Your task to perform on an android device: refresh tabs in the chrome app Image 0: 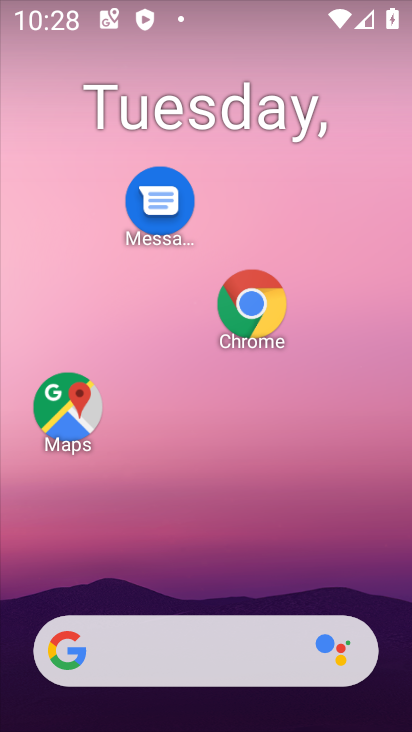
Step 0: drag from (287, 533) to (339, 221)
Your task to perform on an android device: refresh tabs in the chrome app Image 1: 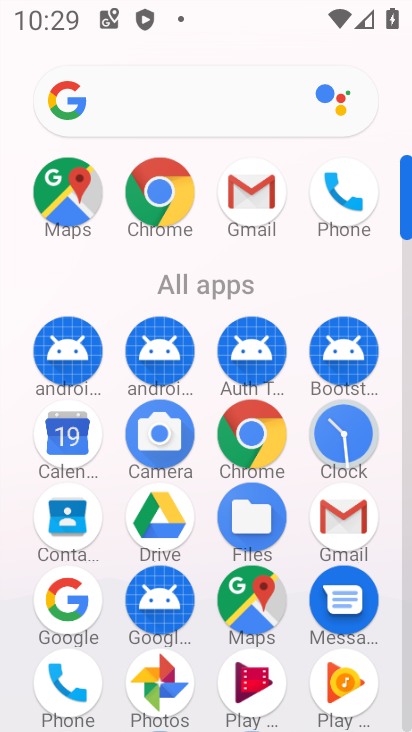
Step 1: click (173, 187)
Your task to perform on an android device: refresh tabs in the chrome app Image 2: 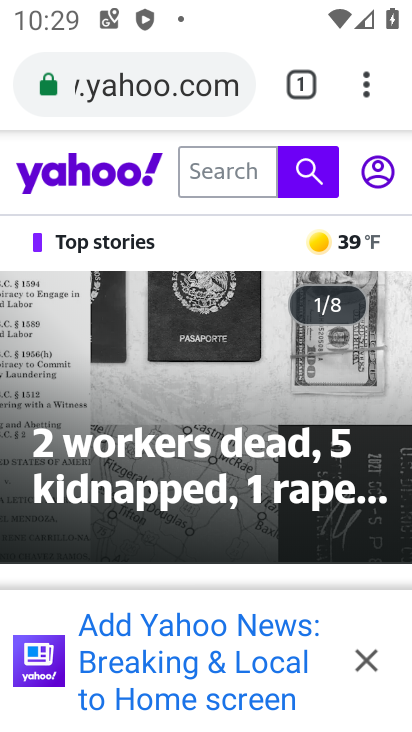
Step 2: click (372, 73)
Your task to perform on an android device: refresh tabs in the chrome app Image 3: 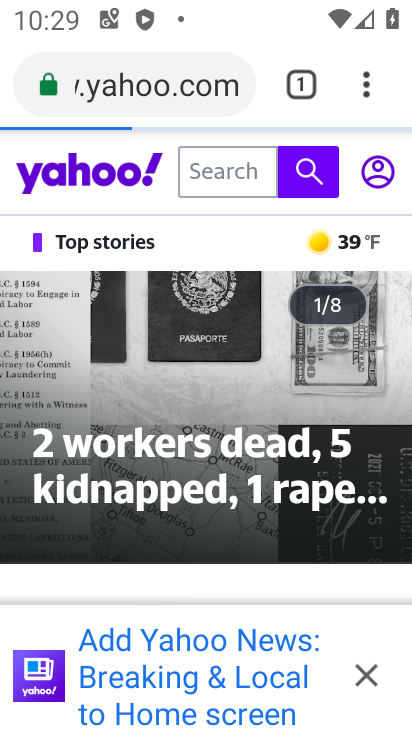
Step 3: click (369, 85)
Your task to perform on an android device: refresh tabs in the chrome app Image 4: 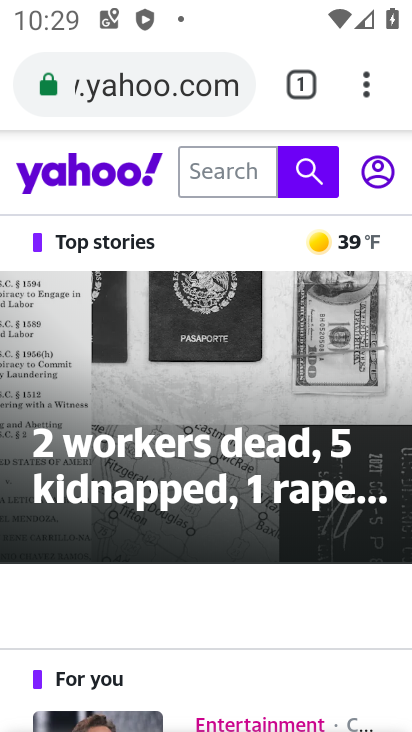
Step 4: click (369, 85)
Your task to perform on an android device: refresh tabs in the chrome app Image 5: 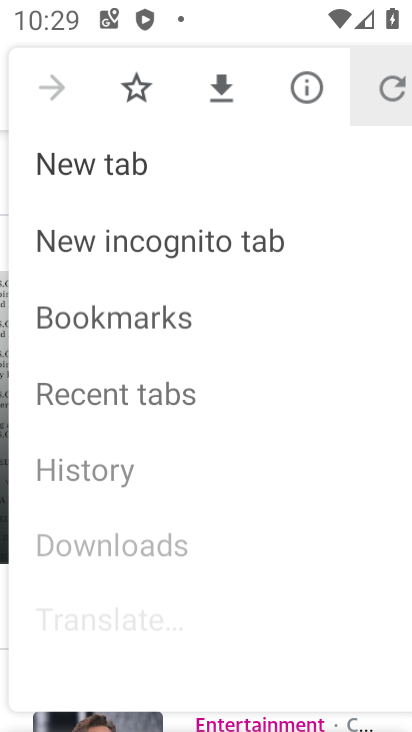
Step 5: click (192, 206)
Your task to perform on an android device: refresh tabs in the chrome app Image 6: 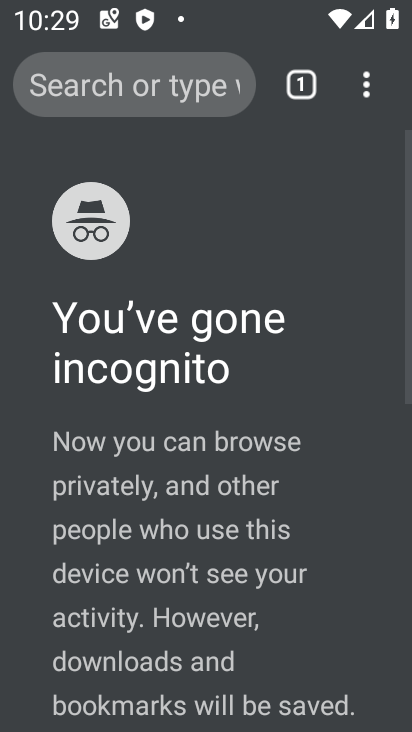
Step 6: click (355, 92)
Your task to perform on an android device: refresh tabs in the chrome app Image 7: 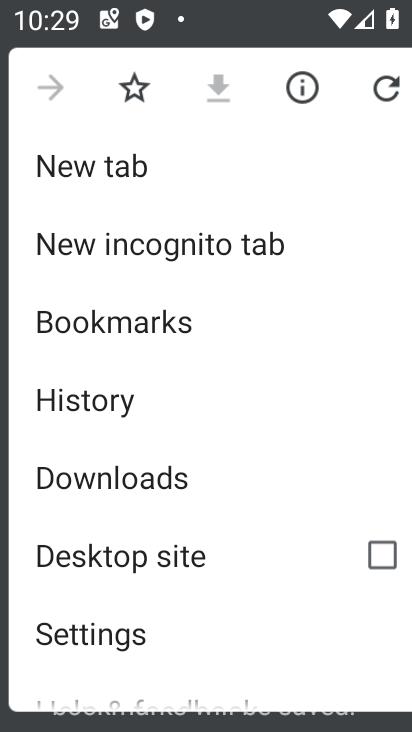
Step 7: click (380, 89)
Your task to perform on an android device: refresh tabs in the chrome app Image 8: 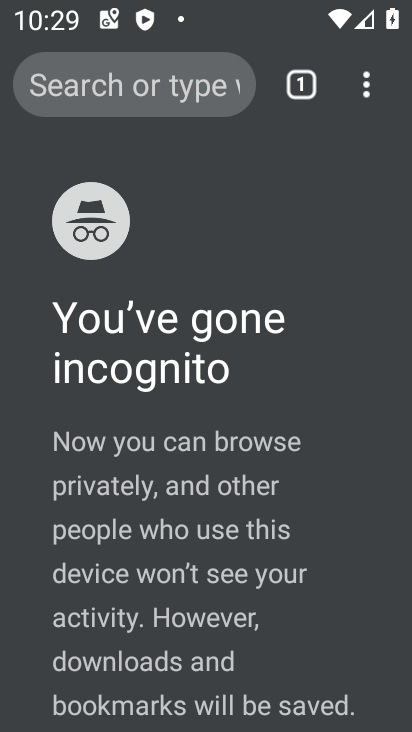
Step 8: click (332, 91)
Your task to perform on an android device: refresh tabs in the chrome app Image 9: 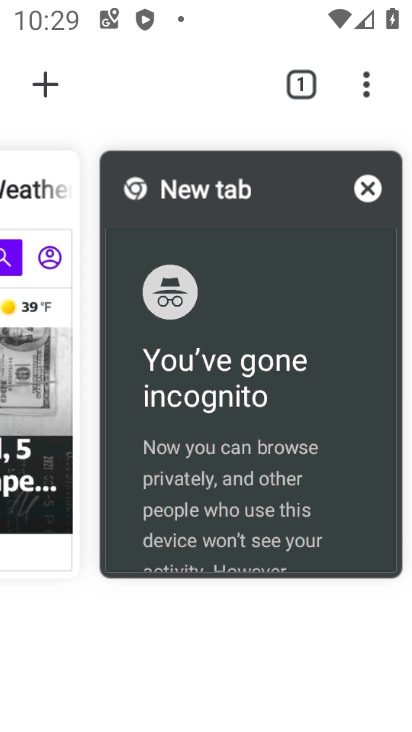
Step 9: click (369, 182)
Your task to perform on an android device: refresh tabs in the chrome app Image 10: 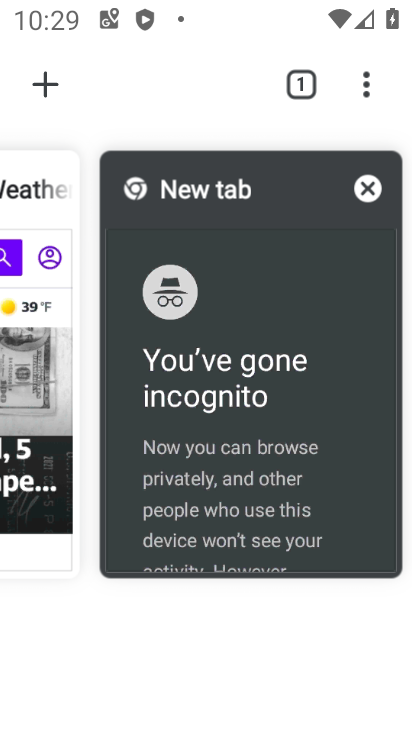
Step 10: click (366, 189)
Your task to perform on an android device: refresh tabs in the chrome app Image 11: 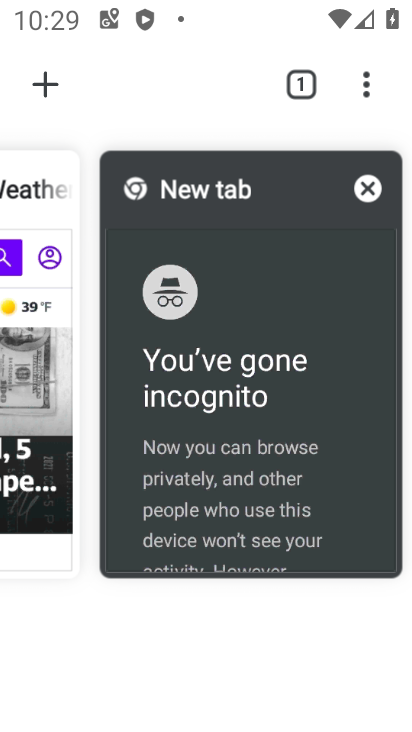
Step 11: click (366, 188)
Your task to perform on an android device: refresh tabs in the chrome app Image 12: 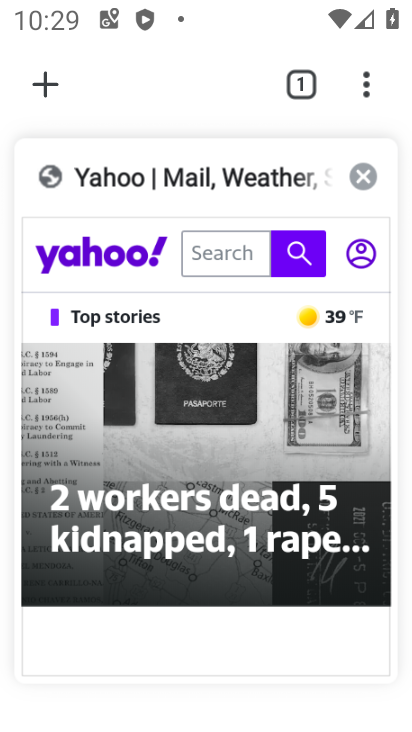
Step 12: click (309, 403)
Your task to perform on an android device: refresh tabs in the chrome app Image 13: 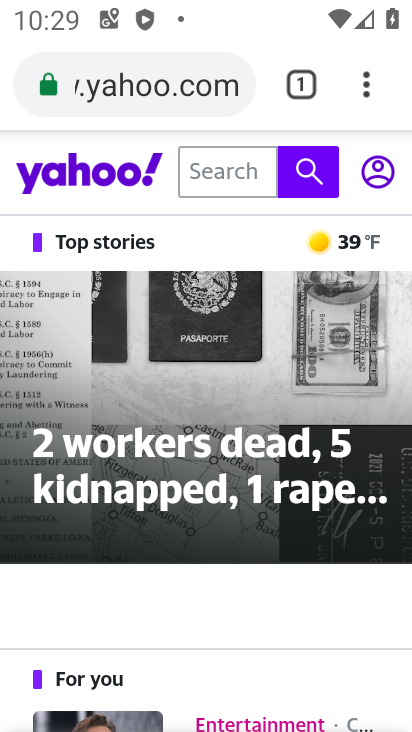
Step 13: click (368, 84)
Your task to perform on an android device: refresh tabs in the chrome app Image 14: 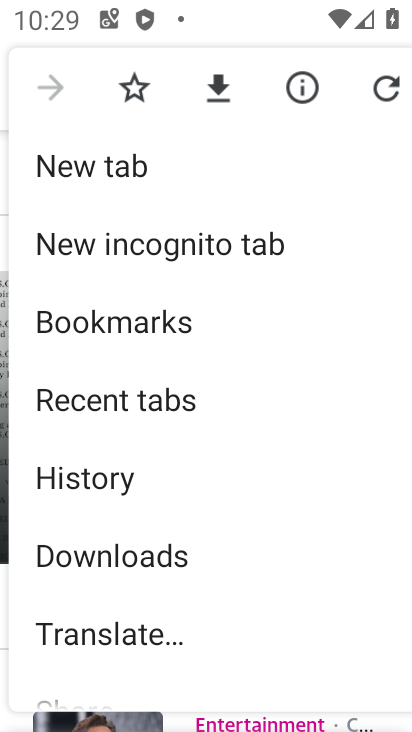
Step 14: click (382, 92)
Your task to perform on an android device: refresh tabs in the chrome app Image 15: 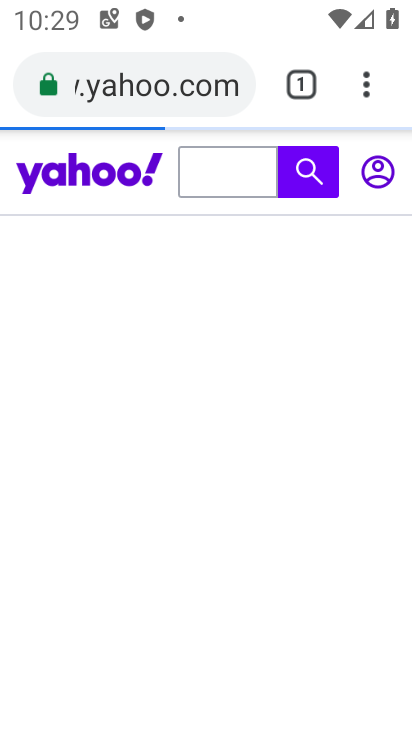
Step 15: task complete